Your task to perform on an android device: set an alarm Image 0: 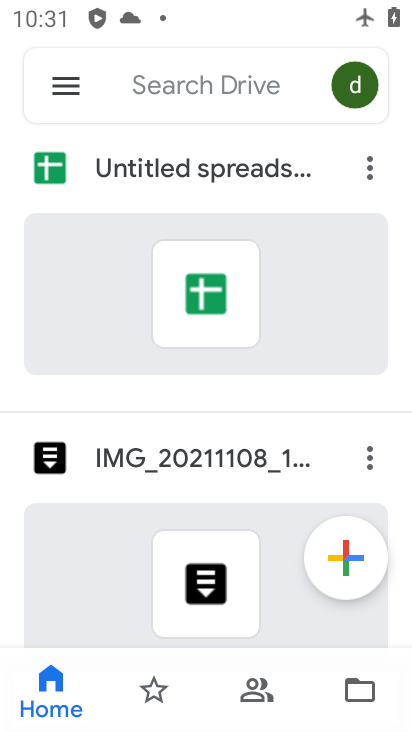
Step 0: press home button
Your task to perform on an android device: set an alarm Image 1: 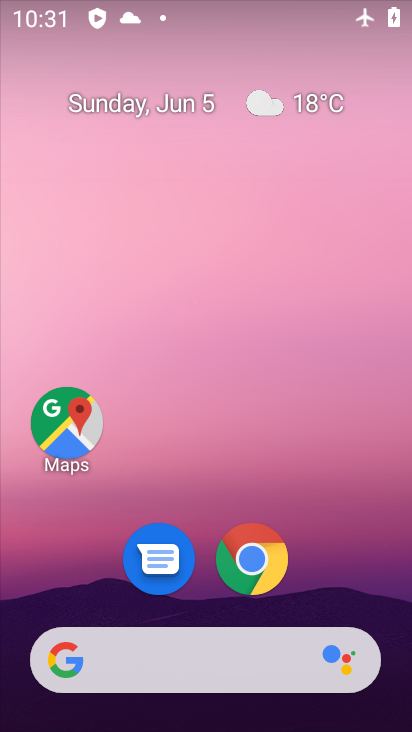
Step 1: drag from (378, 662) to (303, 85)
Your task to perform on an android device: set an alarm Image 2: 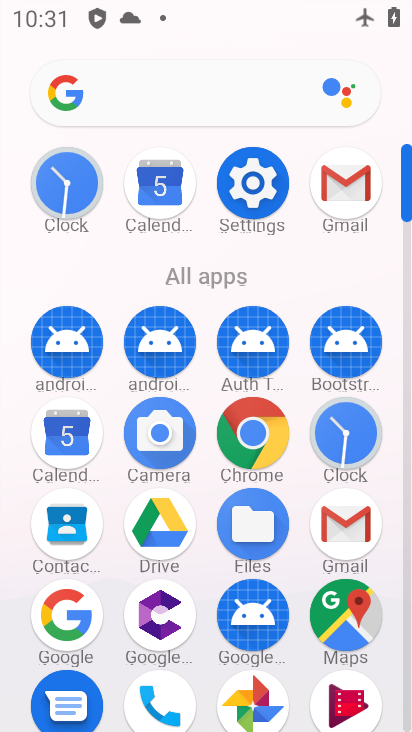
Step 2: click (338, 453)
Your task to perform on an android device: set an alarm Image 3: 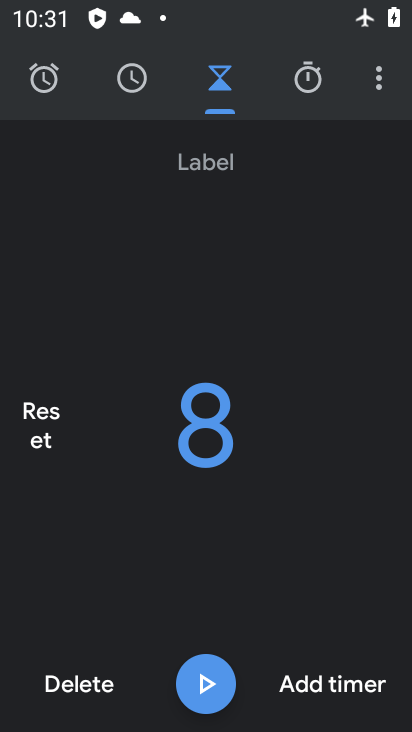
Step 3: click (41, 90)
Your task to perform on an android device: set an alarm Image 4: 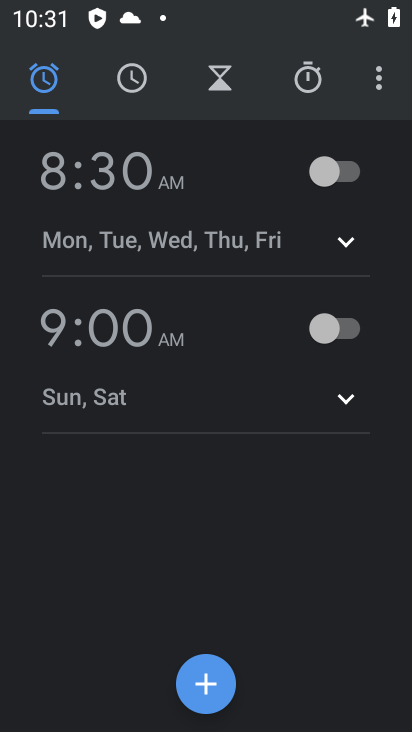
Step 4: click (347, 165)
Your task to perform on an android device: set an alarm Image 5: 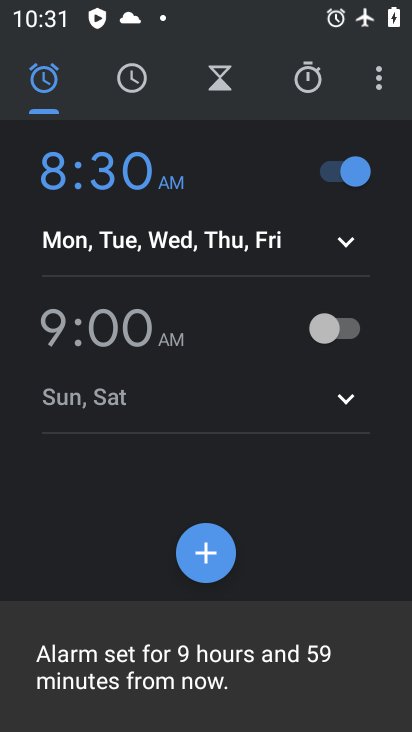
Step 5: task complete